Your task to perform on an android device: Open wifi settings Image 0: 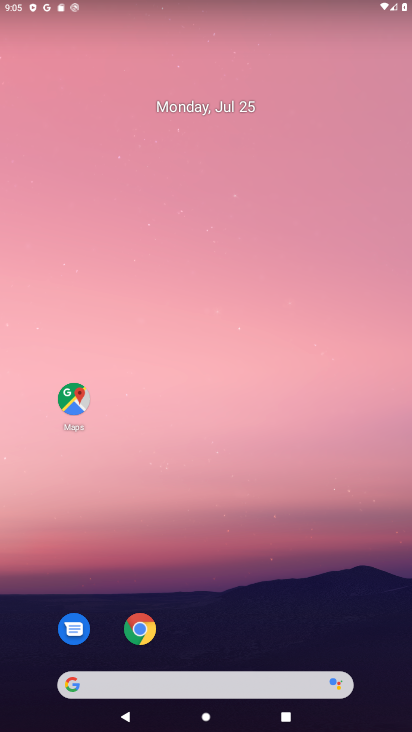
Step 0: drag from (285, 14) to (281, 528)
Your task to perform on an android device: Open wifi settings Image 1: 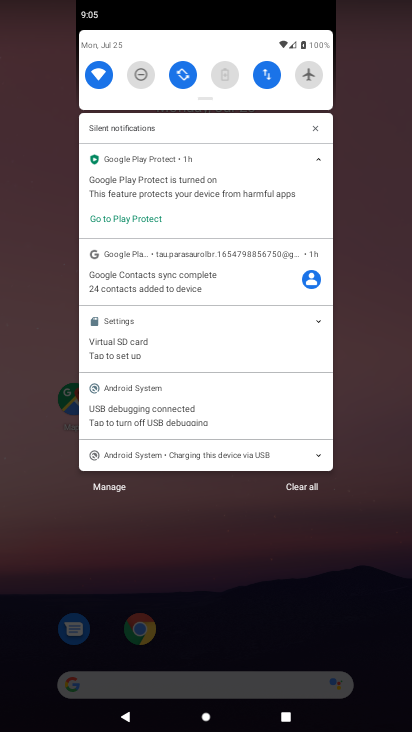
Step 1: click (104, 67)
Your task to perform on an android device: Open wifi settings Image 2: 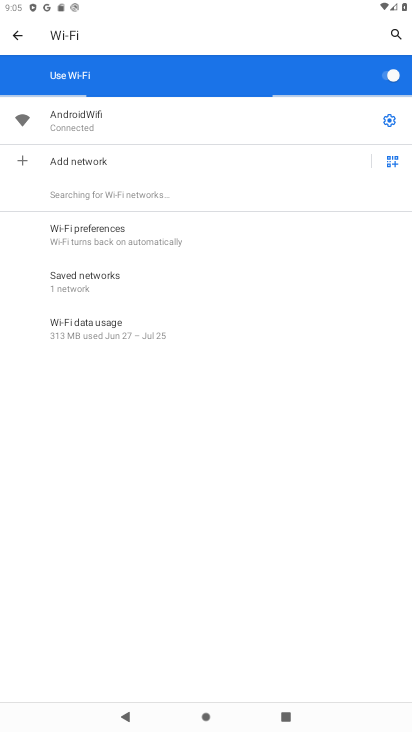
Step 2: task complete